Your task to perform on an android device: Open Google Chrome and click the shortcut for Amazon.com Image 0: 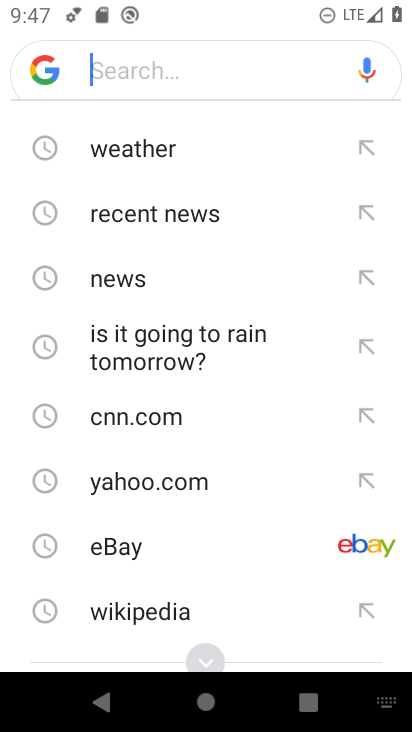
Step 0: press home button
Your task to perform on an android device: Open Google Chrome and click the shortcut for Amazon.com Image 1: 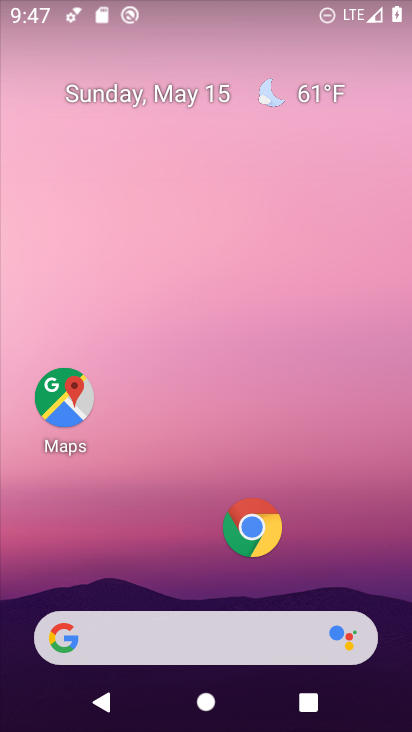
Step 1: click (248, 529)
Your task to perform on an android device: Open Google Chrome and click the shortcut for Amazon.com Image 2: 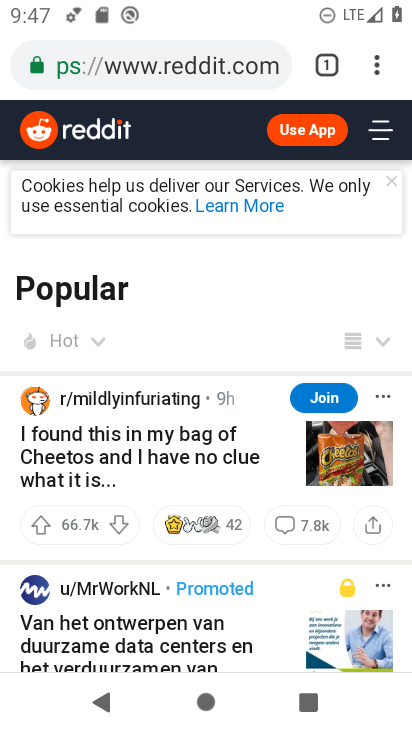
Step 2: click (325, 67)
Your task to perform on an android device: Open Google Chrome and click the shortcut for Amazon.com Image 3: 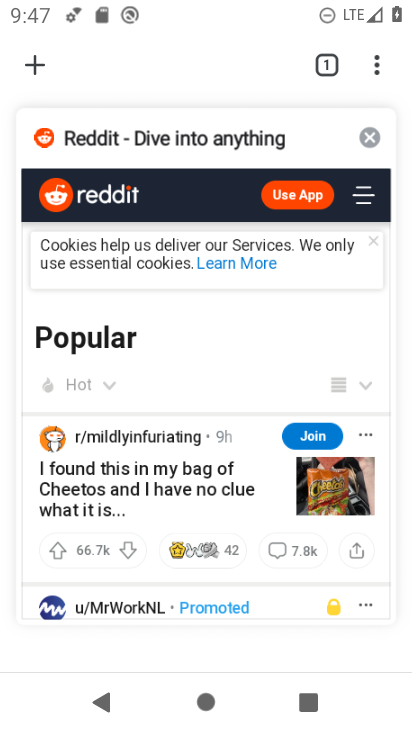
Step 3: click (371, 141)
Your task to perform on an android device: Open Google Chrome and click the shortcut for Amazon.com Image 4: 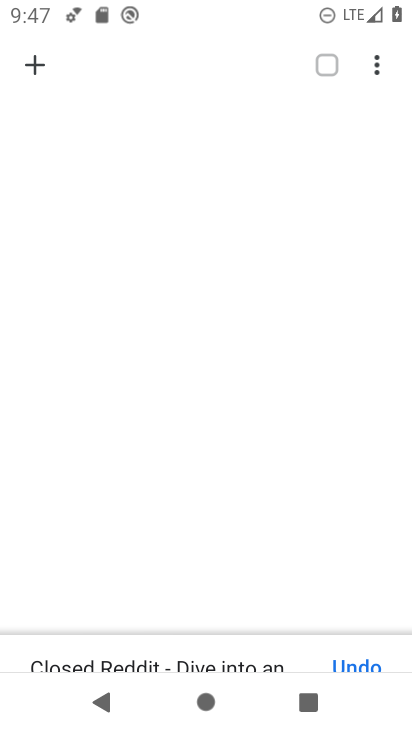
Step 4: click (32, 61)
Your task to perform on an android device: Open Google Chrome and click the shortcut for Amazon.com Image 5: 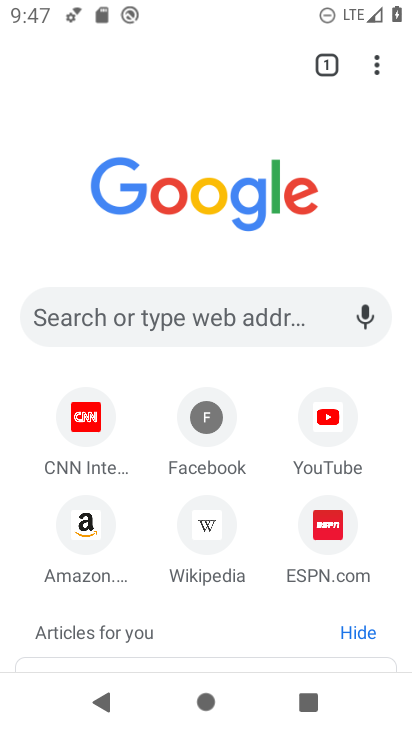
Step 5: click (84, 518)
Your task to perform on an android device: Open Google Chrome and click the shortcut for Amazon.com Image 6: 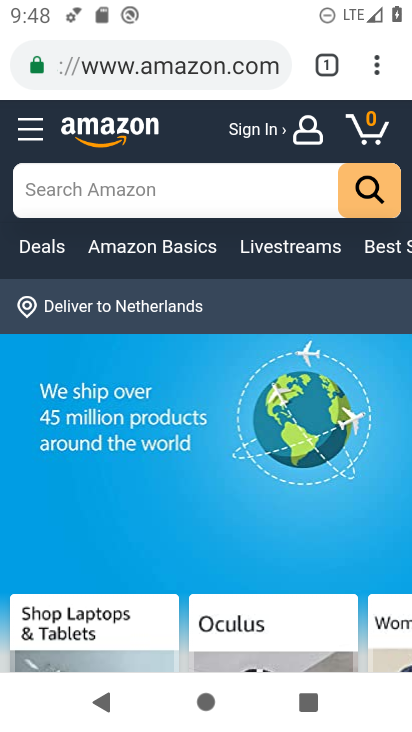
Step 6: task complete